Your task to perform on an android device: Open Google Chrome Image 0: 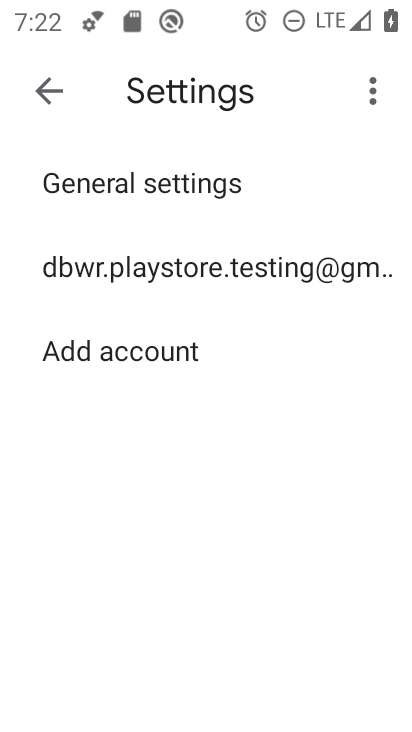
Step 0: press home button
Your task to perform on an android device: Open Google Chrome Image 1: 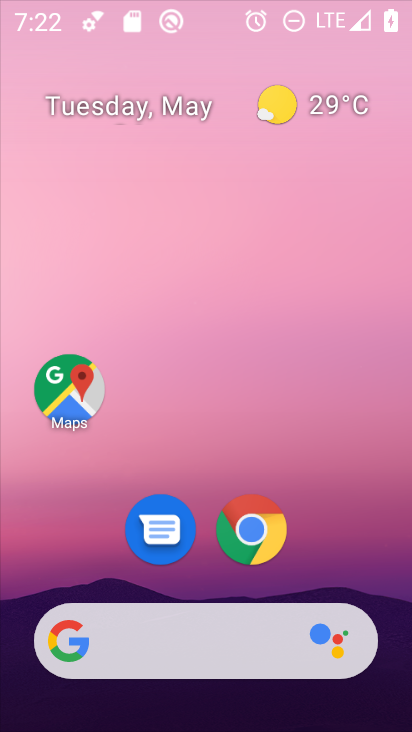
Step 1: drag from (369, 678) to (289, 4)
Your task to perform on an android device: Open Google Chrome Image 2: 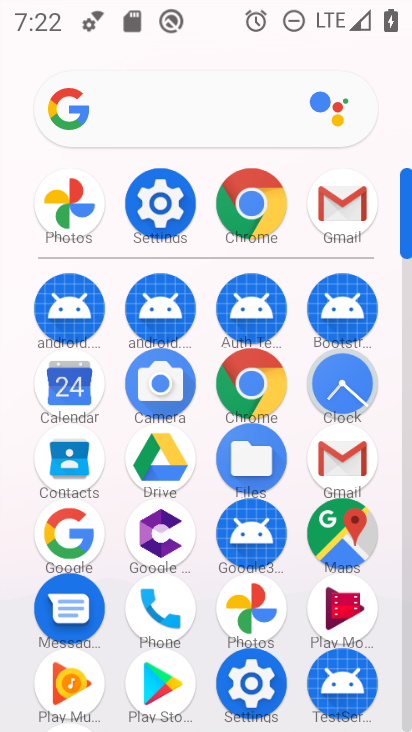
Step 2: click (256, 196)
Your task to perform on an android device: Open Google Chrome Image 3: 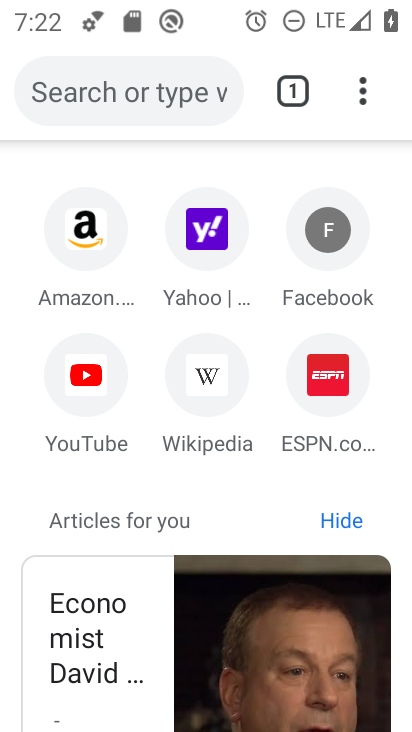
Step 3: task complete